Your task to perform on an android device: uninstall "NewsBreak: Local News & Alerts" Image 0: 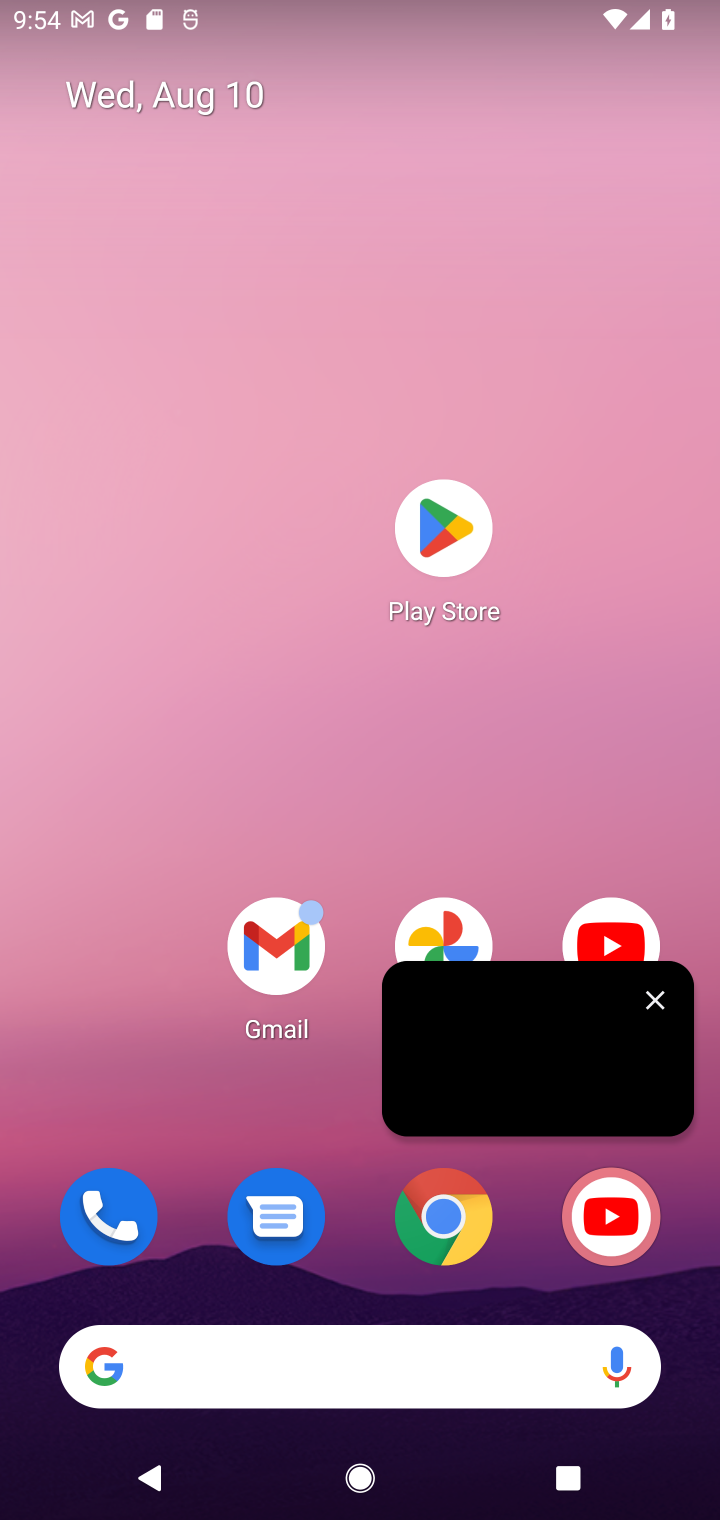
Step 0: press home button
Your task to perform on an android device: uninstall "NewsBreak: Local News & Alerts" Image 1: 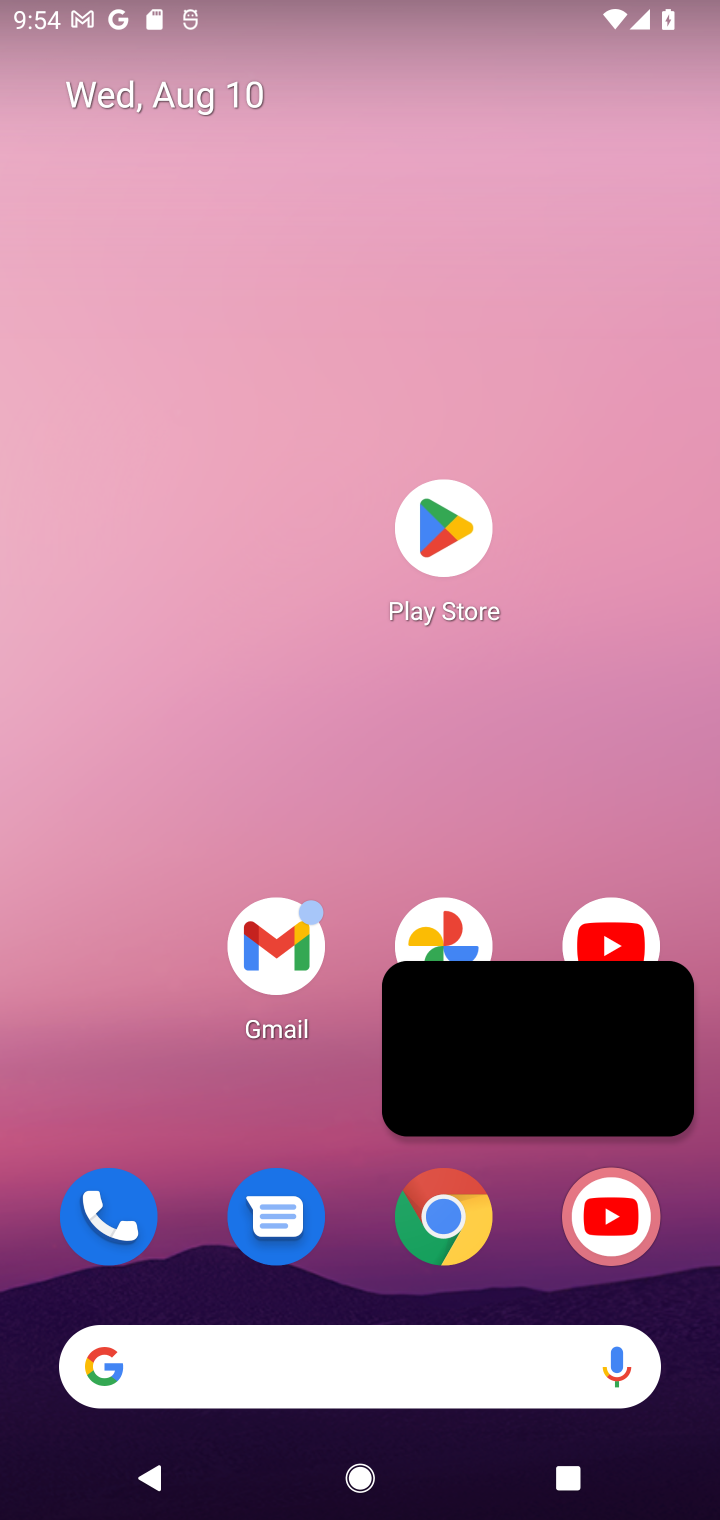
Step 1: click (660, 1010)
Your task to perform on an android device: uninstall "NewsBreak: Local News & Alerts" Image 2: 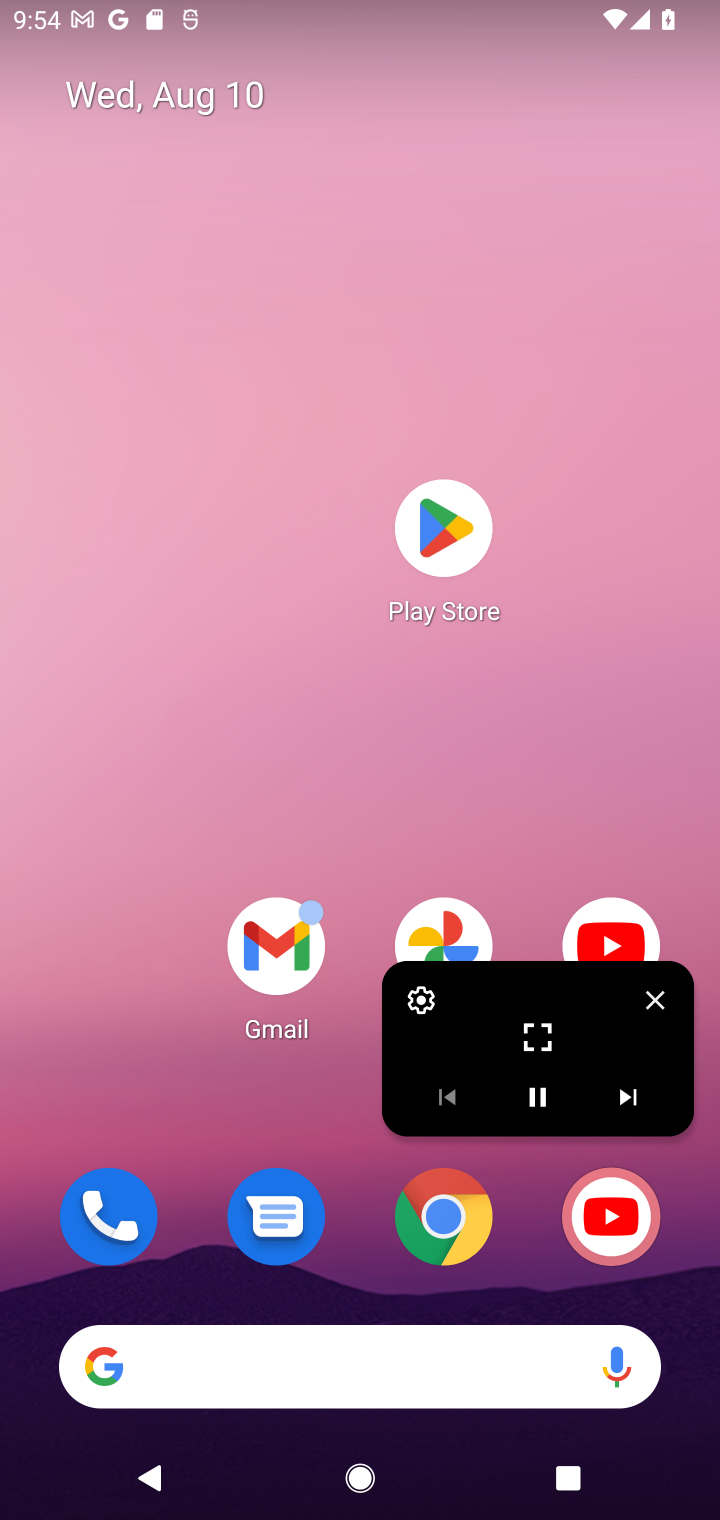
Step 2: click (655, 1004)
Your task to perform on an android device: uninstall "NewsBreak: Local News & Alerts" Image 3: 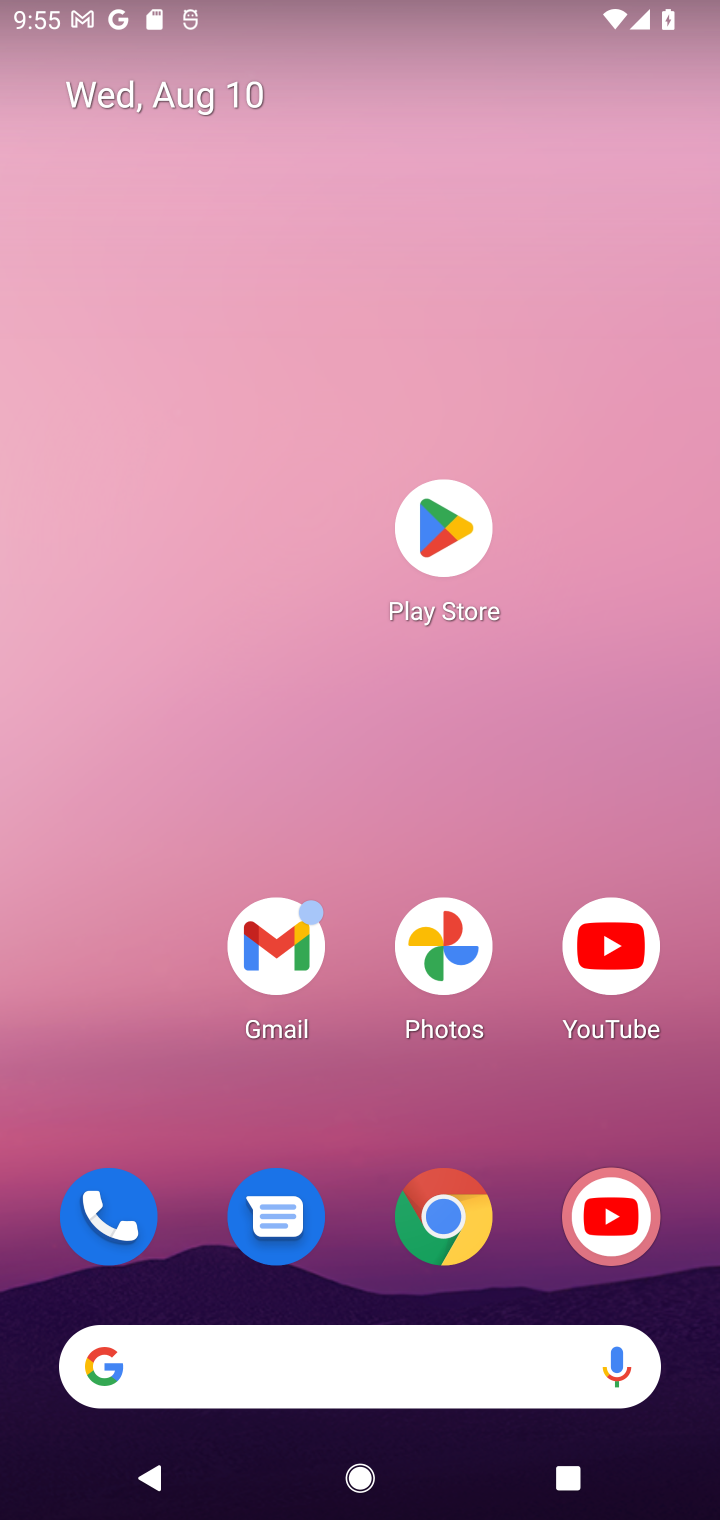
Step 3: click (454, 539)
Your task to perform on an android device: uninstall "NewsBreak: Local News & Alerts" Image 4: 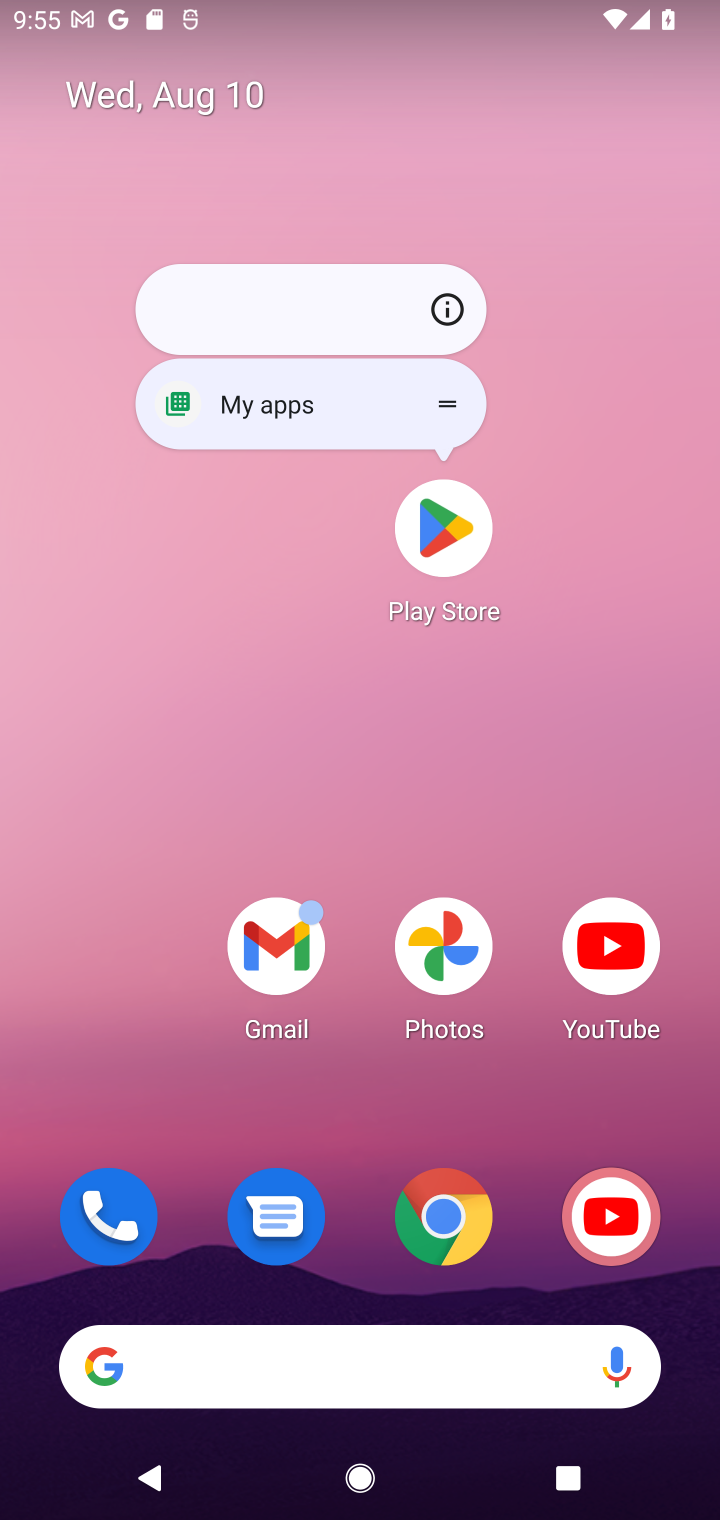
Step 4: click (454, 539)
Your task to perform on an android device: uninstall "NewsBreak: Local News & Alerts" Image 5: 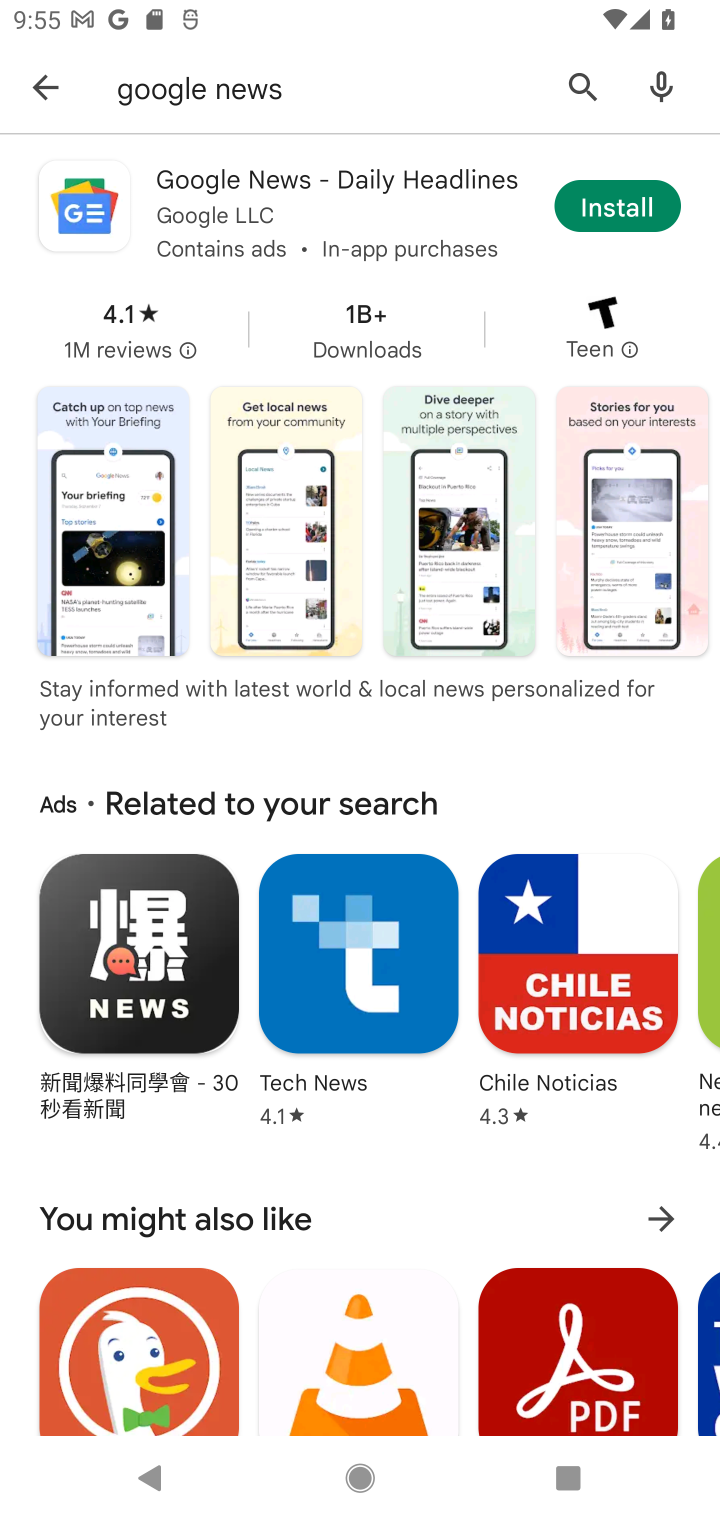
Step 5: click (576, 71)
Your task to perform on an android device: uninstall "NewsBreak: Local News & Alerts" Image 6: 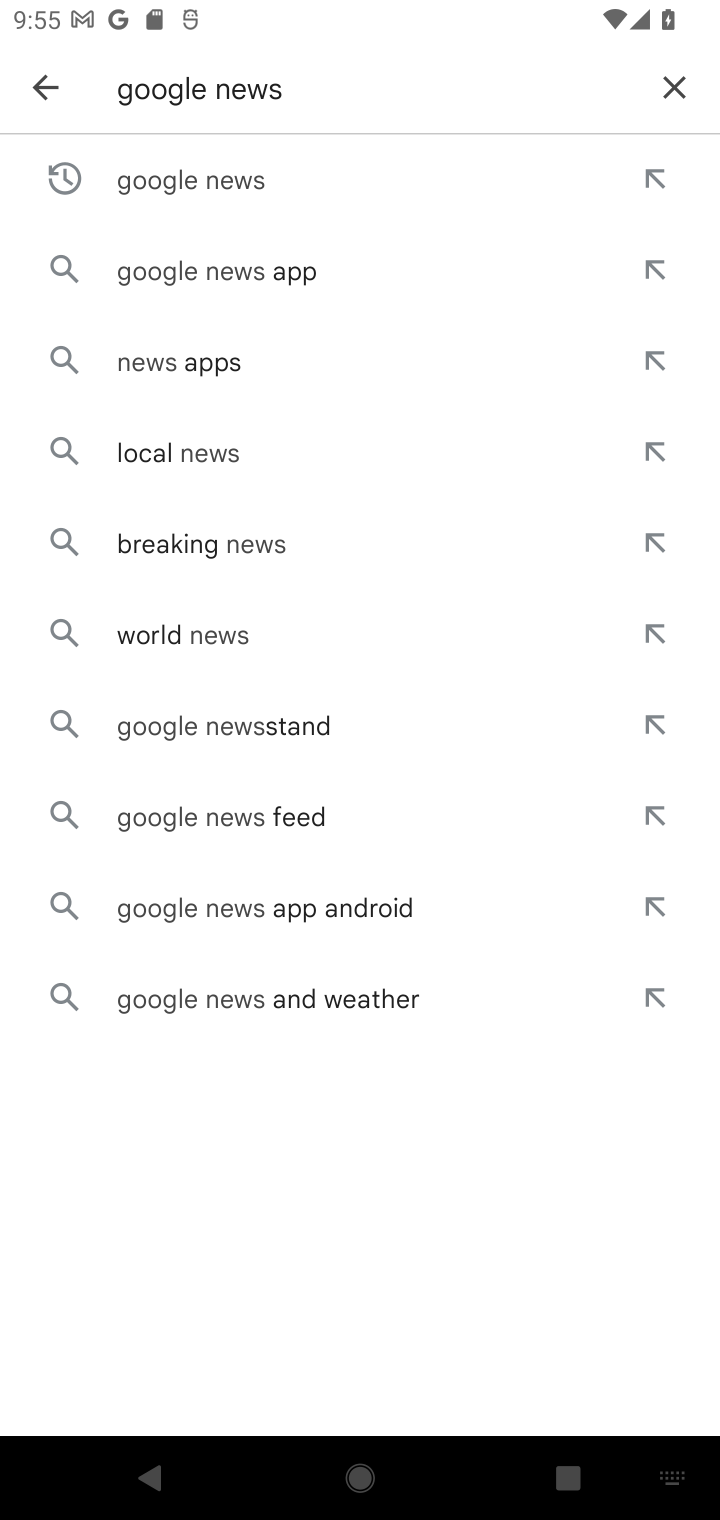
Step 6: click (668, 77)
Your task to perform on an android device: uninstall "NewsBreak: Local News & Alerts" Image 7: 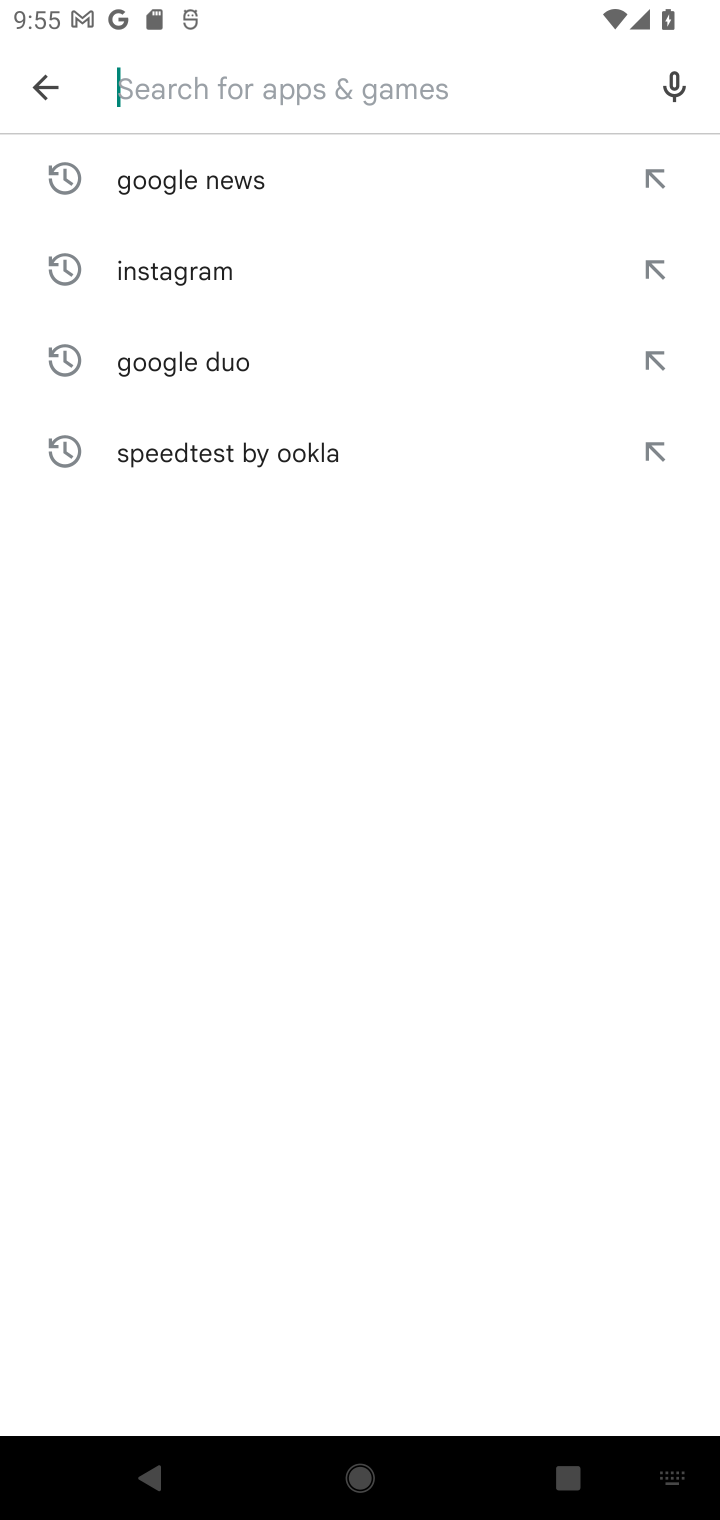
Step 7: type "NewsBreak: Local News & Alerts"
Your task to perform on an android device: uninstall "NewsBreak: Local News & Alerts" Image 8: 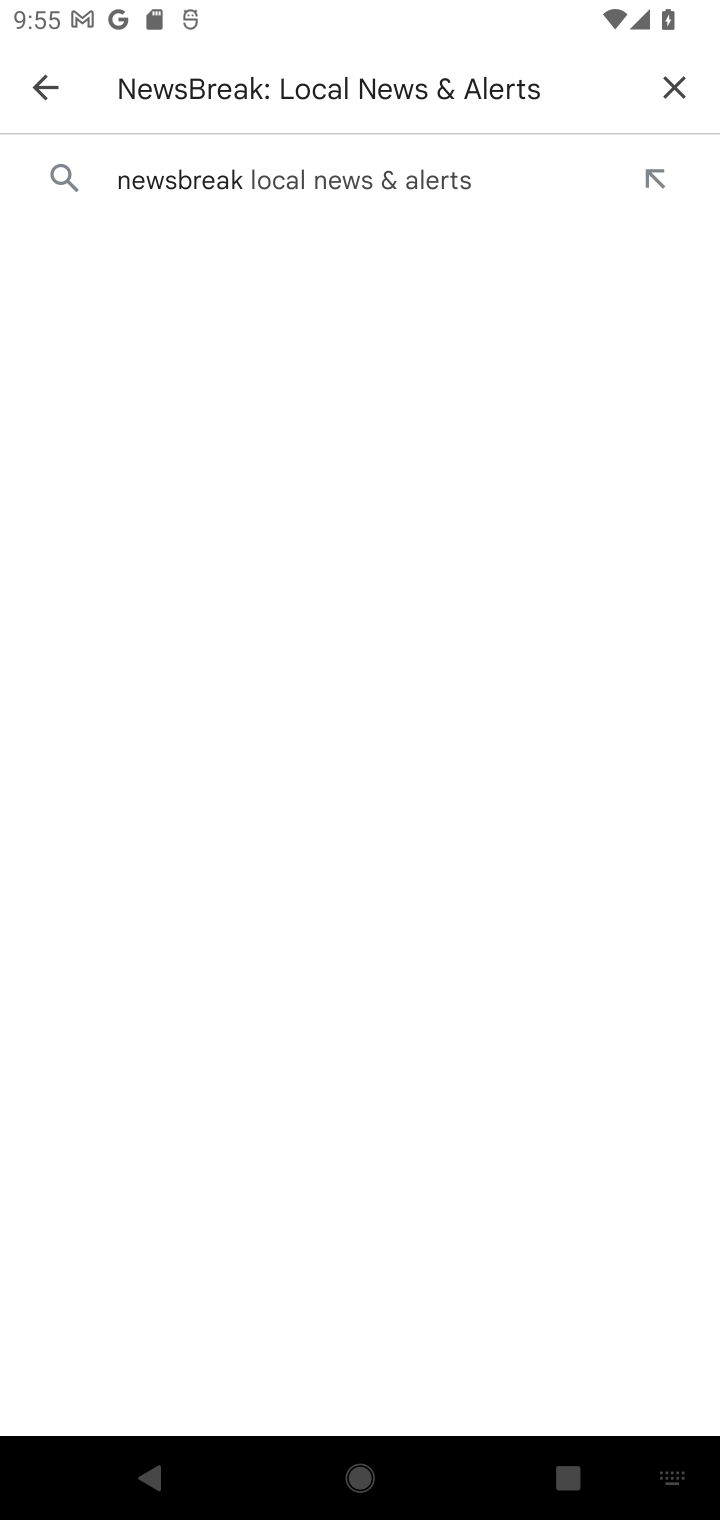
Step 8: click (397, 170)
Your task to perform on an android device: uninstall "NewsBreak: Local News & Alerts" Image 9: 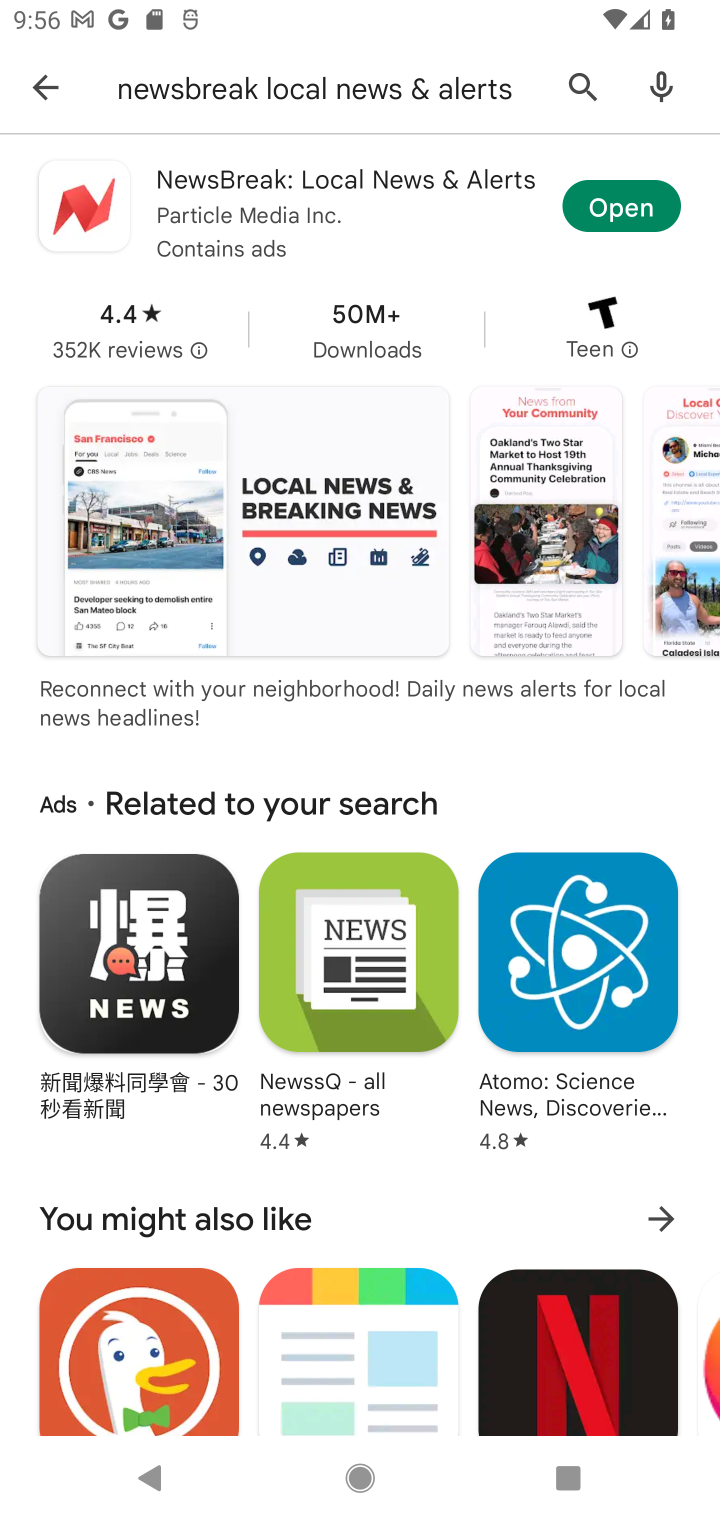
Step 9: click (290, 191)
Your task to perform on an android device: uninstall "NewsBreak: Local News & Alerts" Image 10: 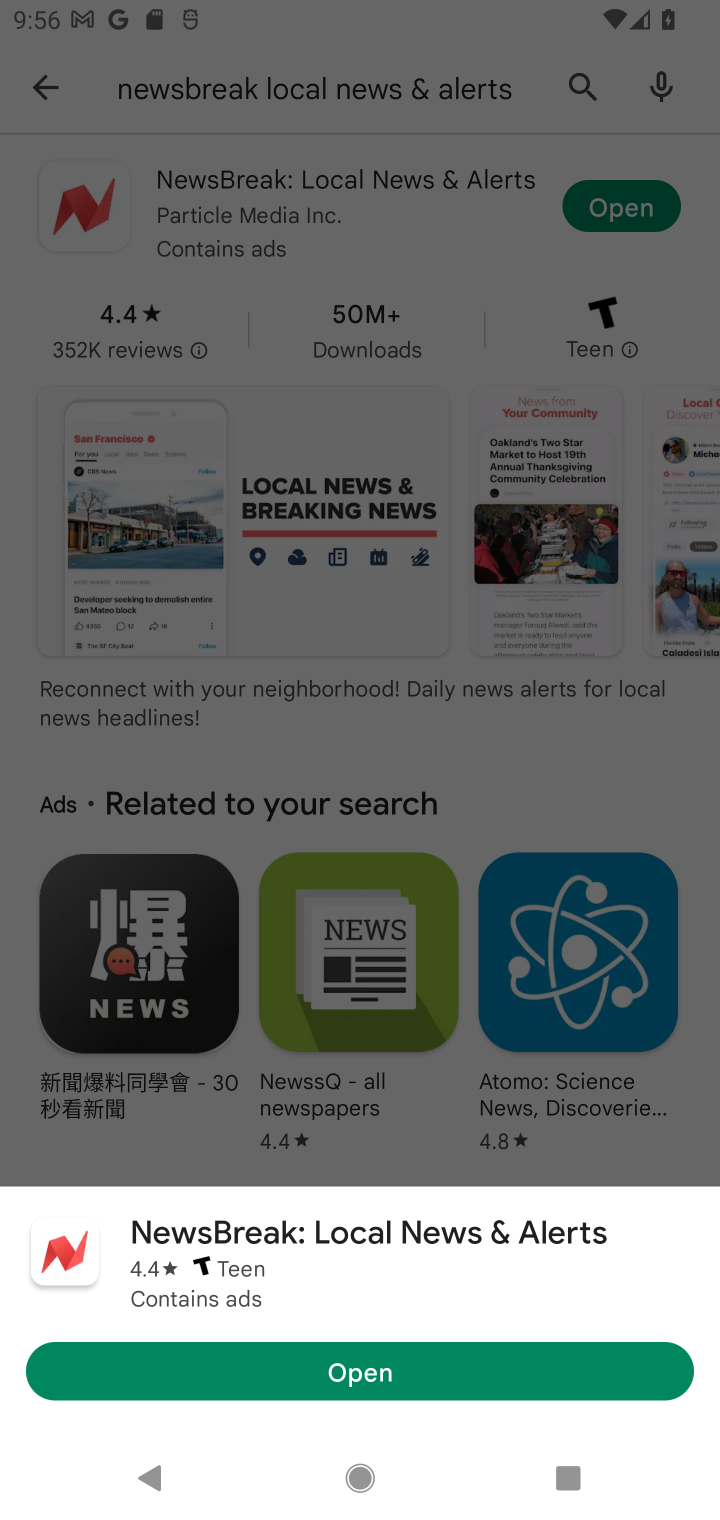
Step 10: click (195, 223)
Your task to perform on an android device: uninstall "NewsBreak: Local News & Alerts" Image 11: 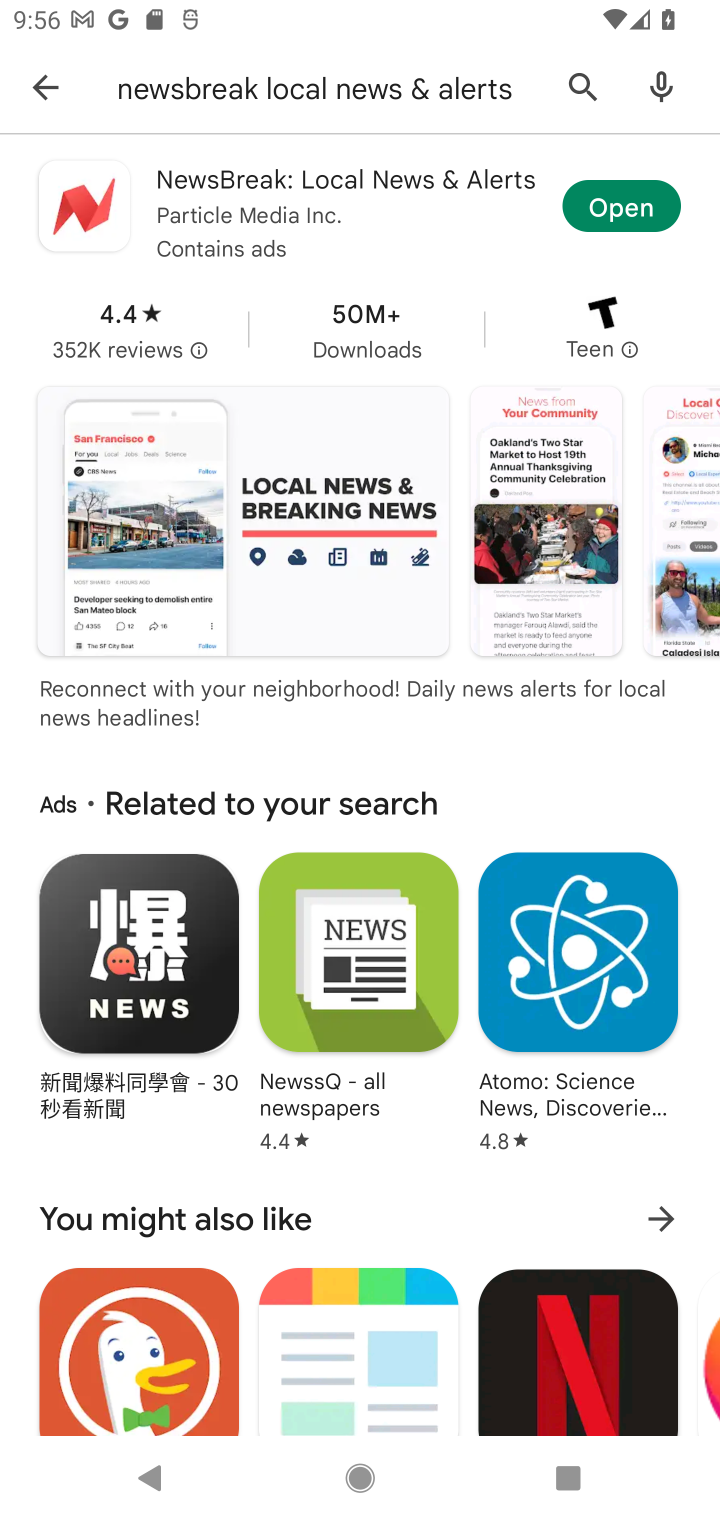
Step 11: click (99, 196)
Your task to perform on an android device: uninstall "NewsBreak: Local News & Alerts" Image 12: 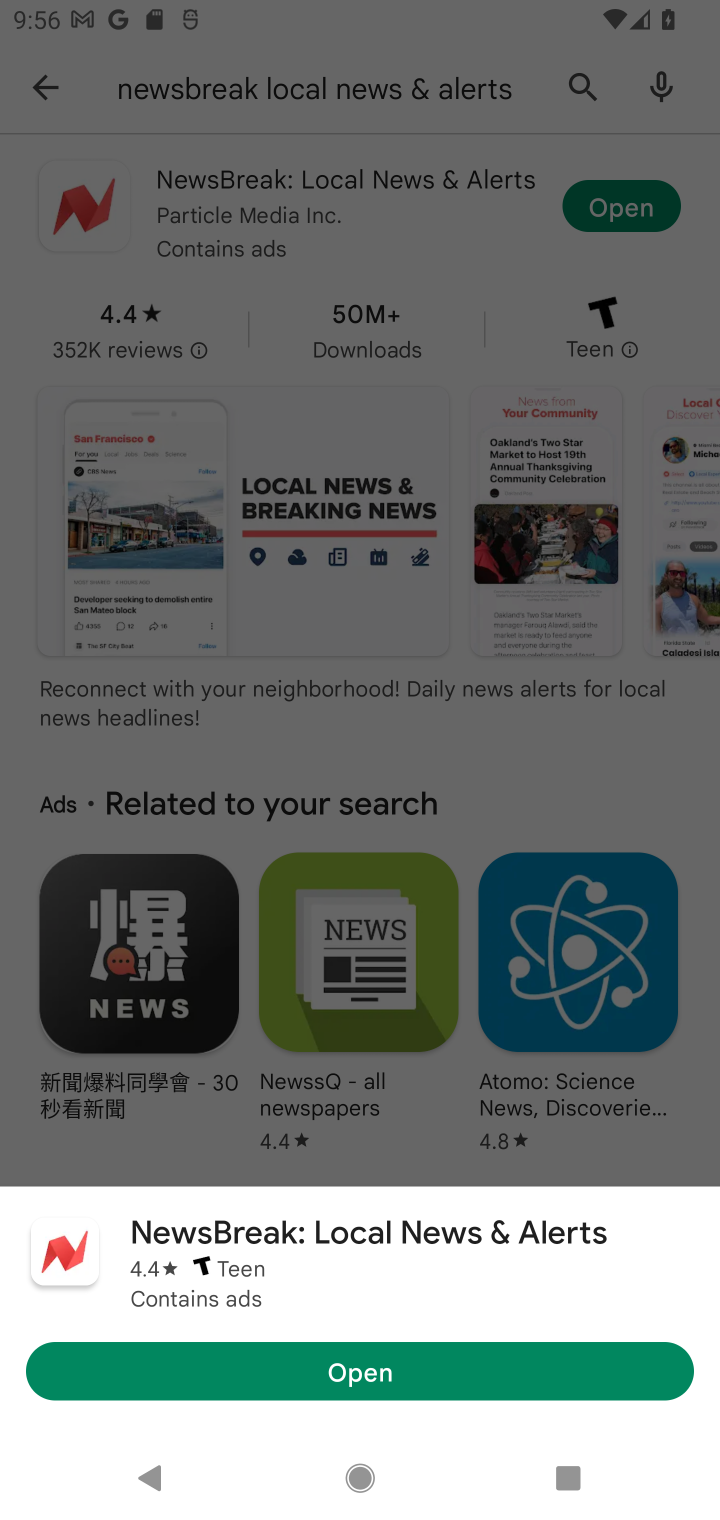
Step 12: click (83, 1248)
Your task to perform on an android device: uninstall "NewsBreak: Local News & Alerts" Image 13: 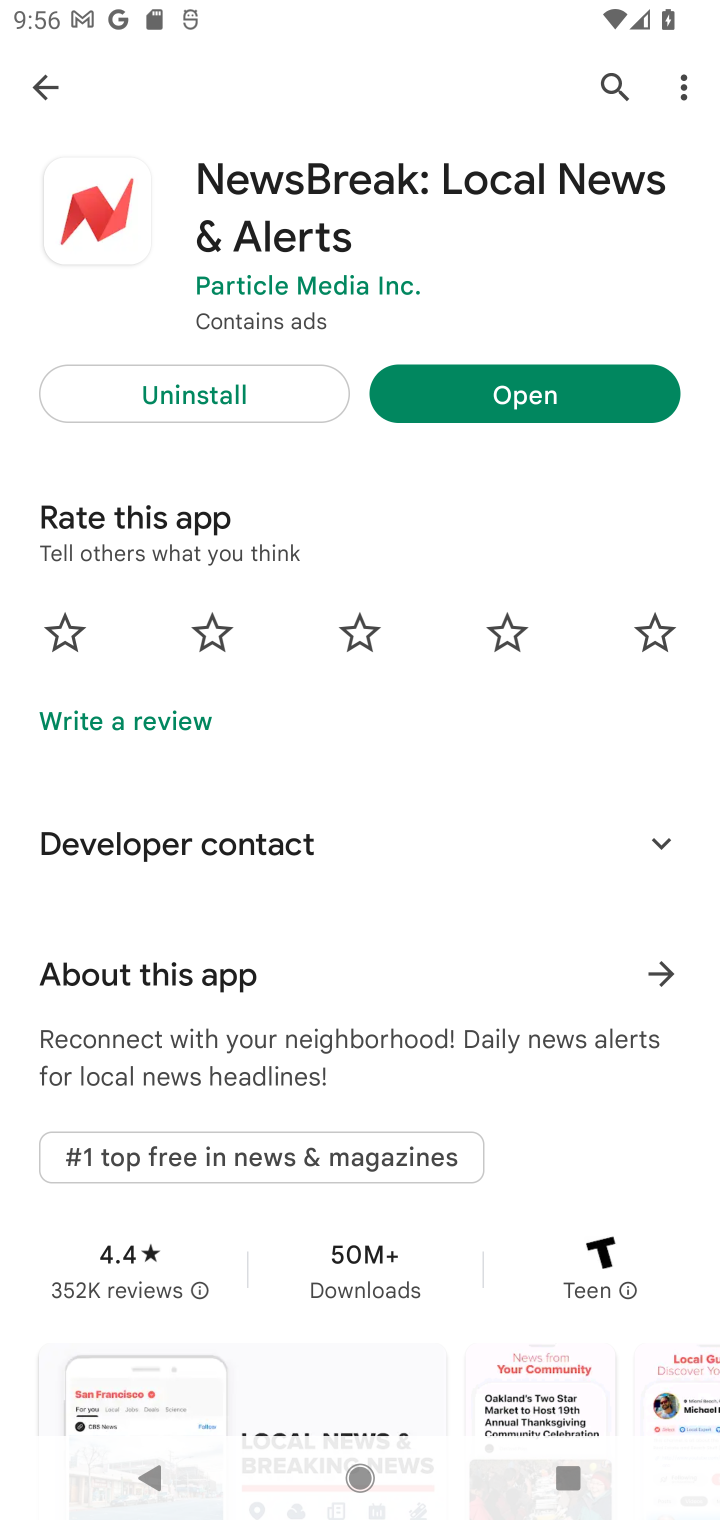
Step 13: click (196, 391)
Your task to perform on an android device: uninstall "NewsBreak: Local News & Alerts" Image 14: 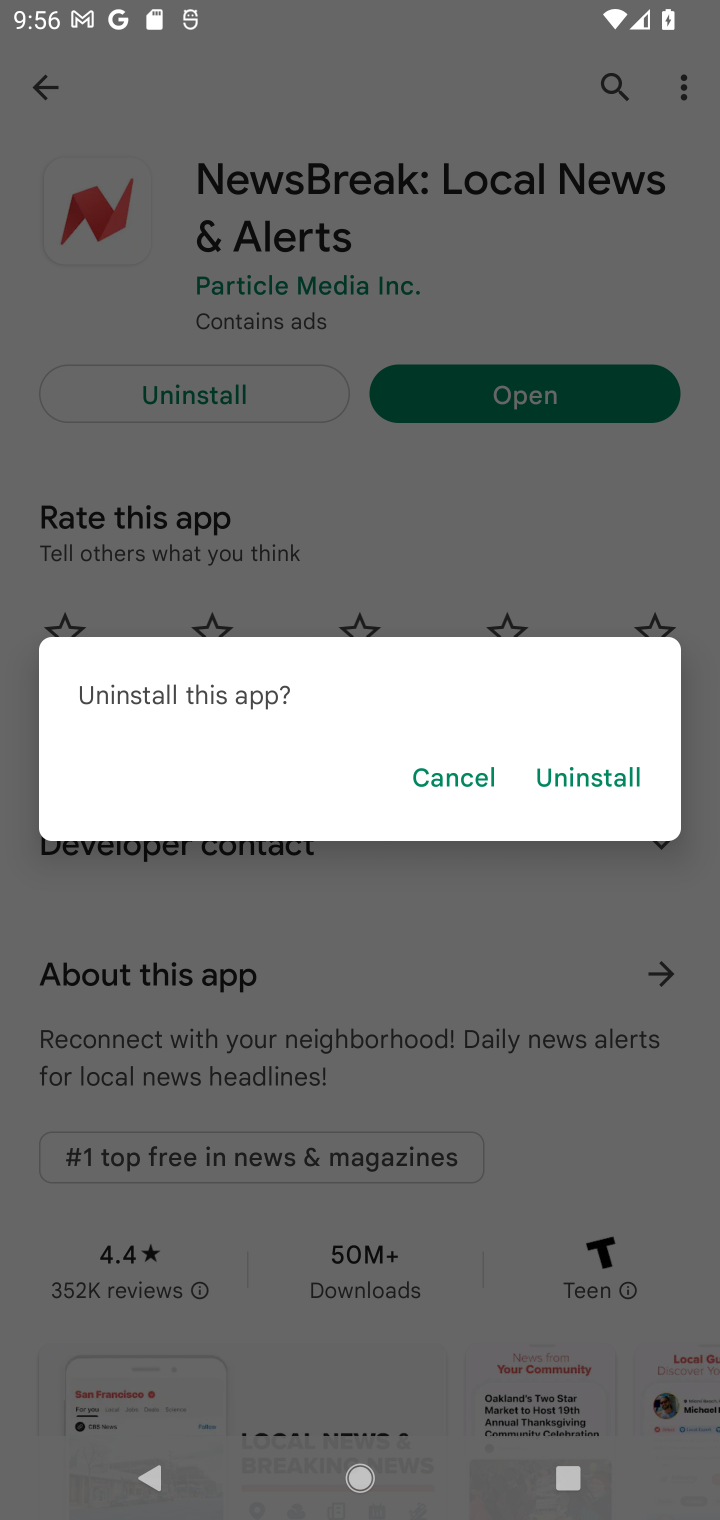
Step 14: click (587, 772)
Your task to perform on an android device: uninstall "NewsBreak: Local News & Alerts" Image 15: 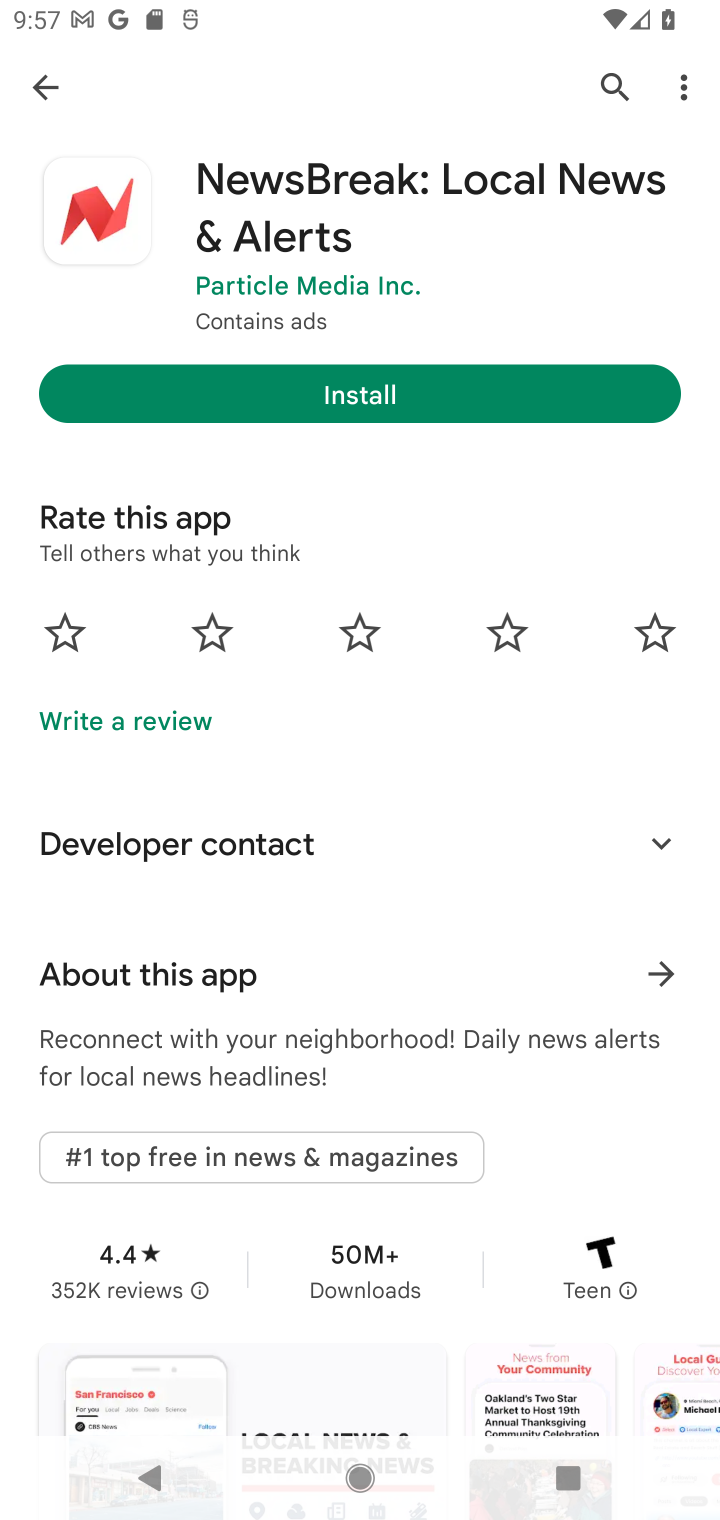
Step 15: task complete